Your task to perform on an android device: Open calendar and show me the first week of next month Image 0: 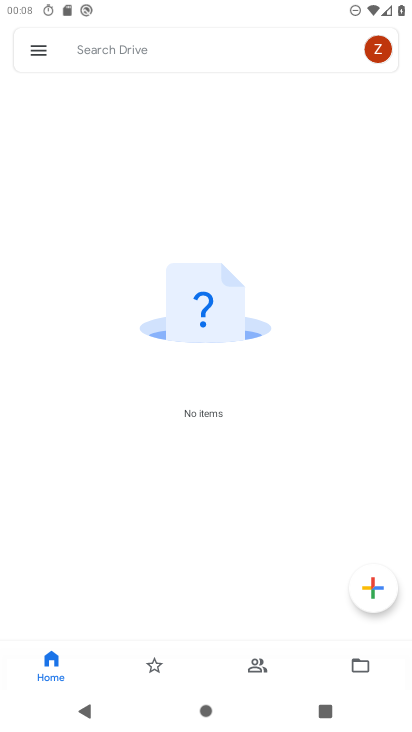
Step 0: press home button
Your task to perform on an android device: Open calendar and show me the first week of next month Image 1: 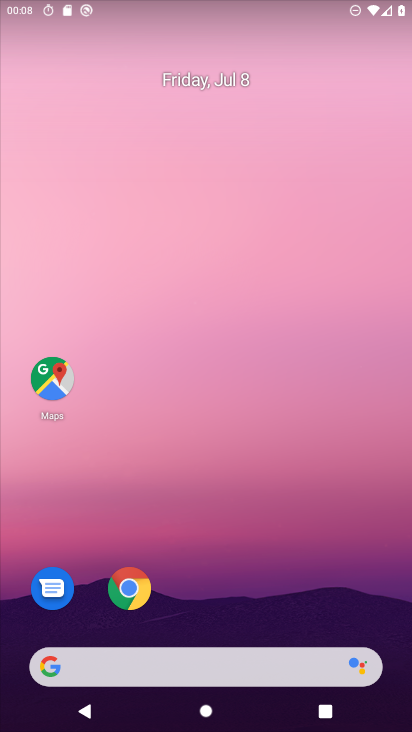
Step 1: drag from (242, 596) to (290, 28)
Your task to perform on an android device: Open calendar and show me the first week of next month Image 2: 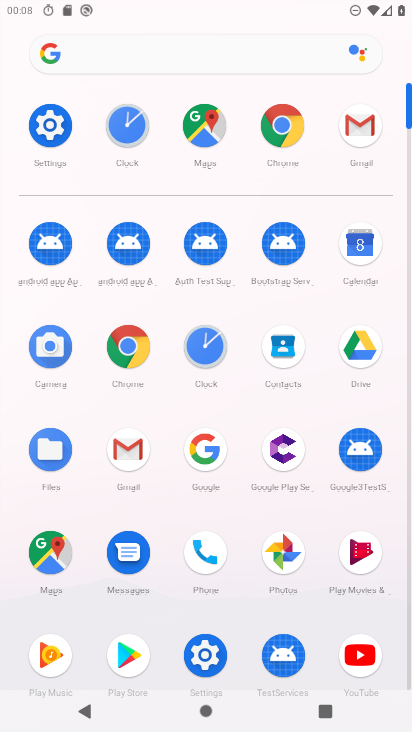
Step 2: click (366, 249)
Your task to perform on an android device: Open calendar and show me the first week of next month Image 3: 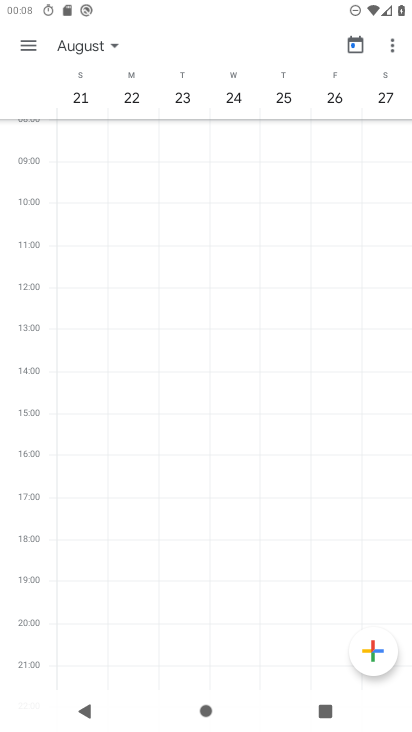
Step 3: click (99, 42)
Your task to perform on an android device: Open calendar and show me the first week of next month Image 4: 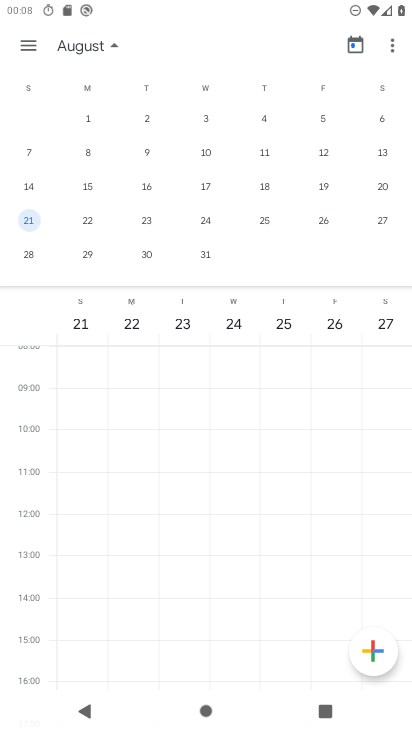
Step 4: click (90, 114)
Your task to perform on an android device: Open calendar and show me the first week of next month Image 5: 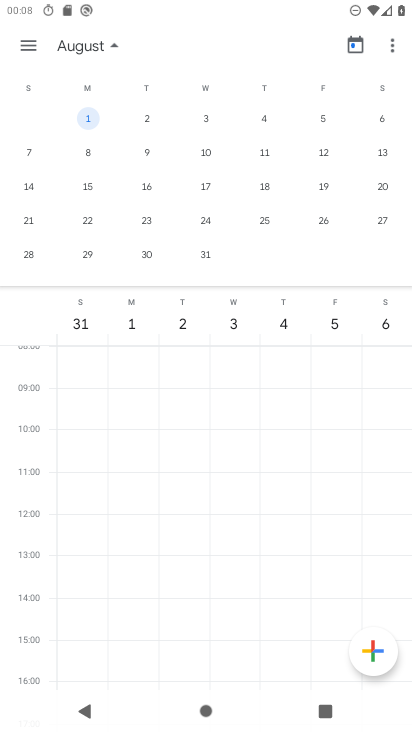
Step 5: drag from (257, 405) to (297, 113)
Your task to perform on an android device: Open calendar and show me the first week of next month Image 6: 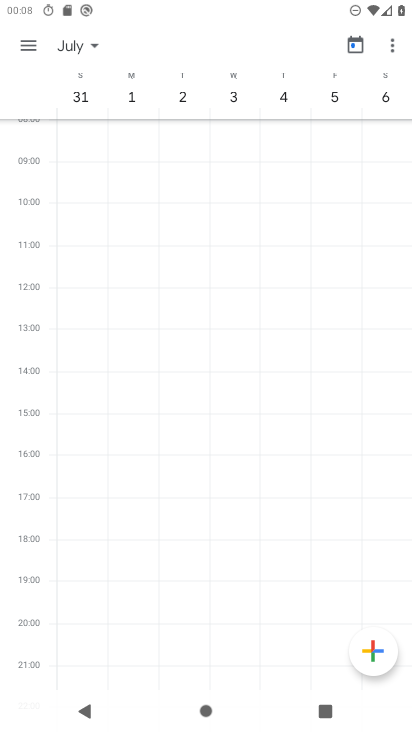
Step 6: click (80, 45)
Your task to perform on an android device: Open calendar and show me the first week of next month Image 7: 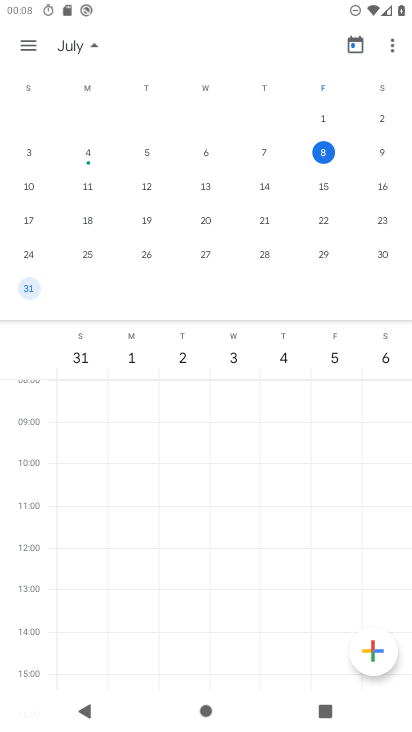
Step 7: drag from (364, 154) to (0, 153)
Your task to perform on an android device: Open calendar and show me the first week of next month Image 8: 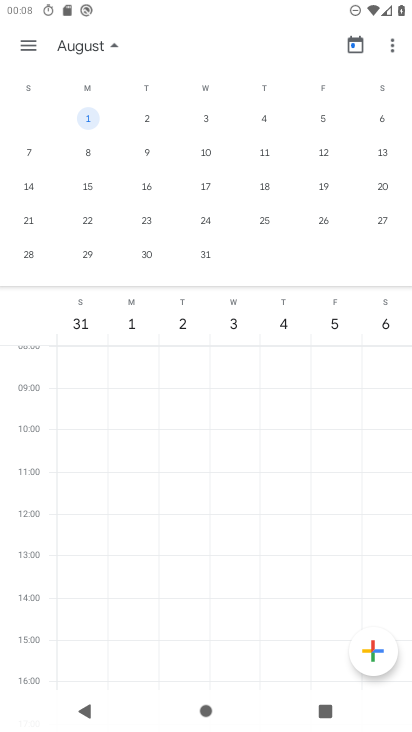
Step 8: click (88, 109)
Your task to perform on an android device: Open calendar and show me the first week of next month Image 9: 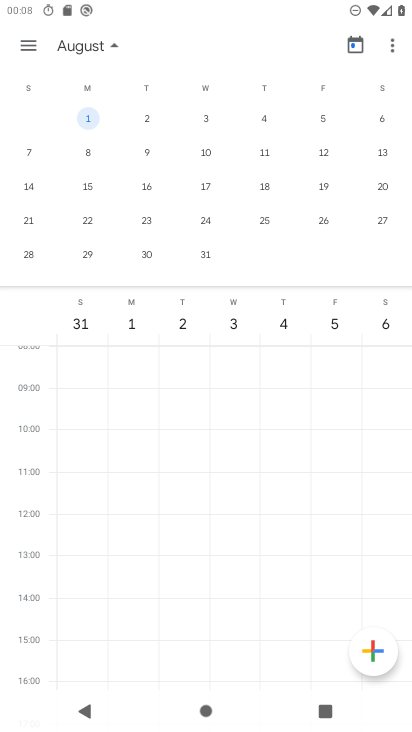
Step 9: drag from (234, 370) to (250, 65)
Your task to perform on an android device: Open calendar and show me the first week of next month Image 10: 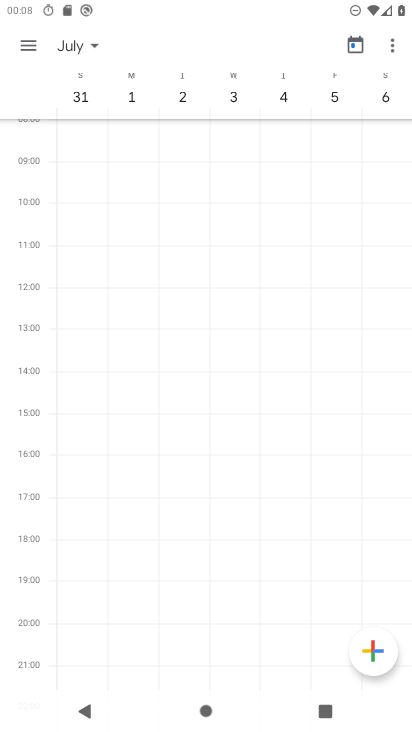
Step 10: click (94, 39)
Your task to perform on an android device: Open calendar and show me the first week of next month Image 11: 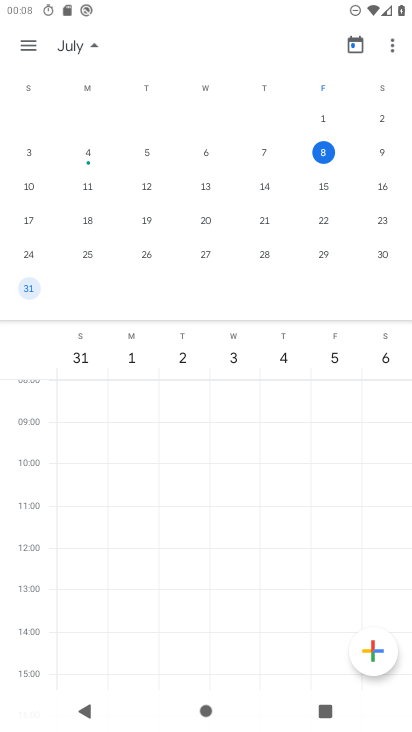
Step 11: drag from (350, 179) to (9, 237)
Your task to perform on an android device: Open calendar and show me the first week of next month Image 12: 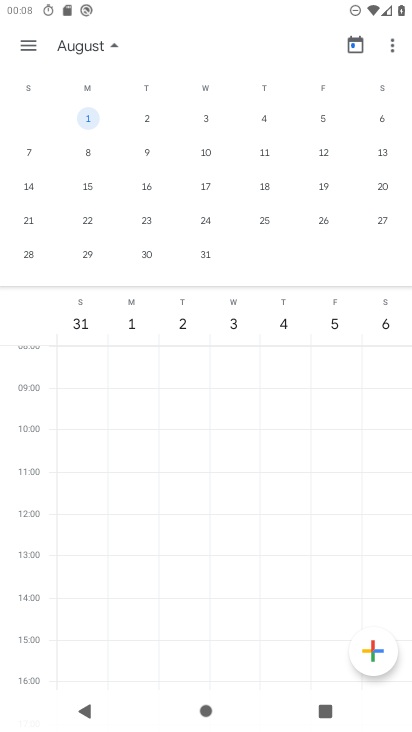
Step 12: click (321, 112)
Your task to perform on an android device: Open calendar and show me the first week of next month Image 13: 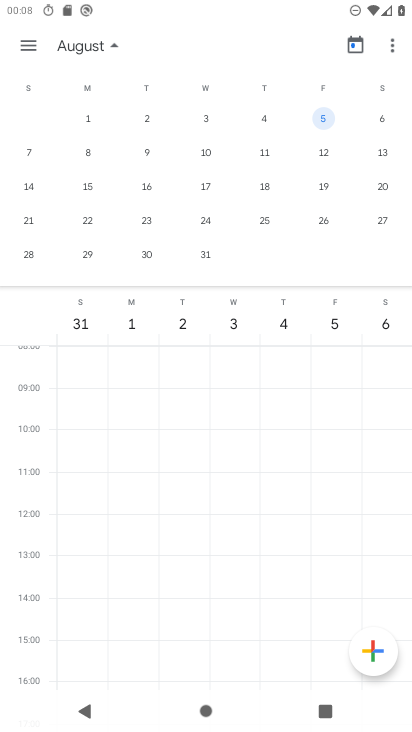
Step 13: task complete